Your task to perform on an android device: Open Google Chrome and click the shortcut for Amazon.com Image 0: 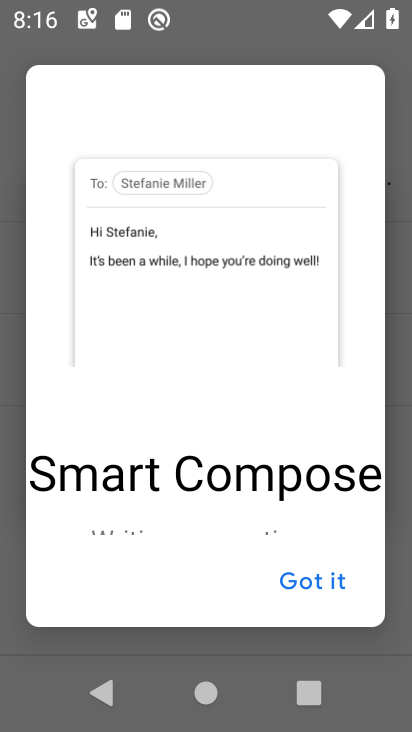
Step 0: press home button
Your task to perform on an android device: Open Google Chrome and click the shortcut for Amazon.com Image 1: 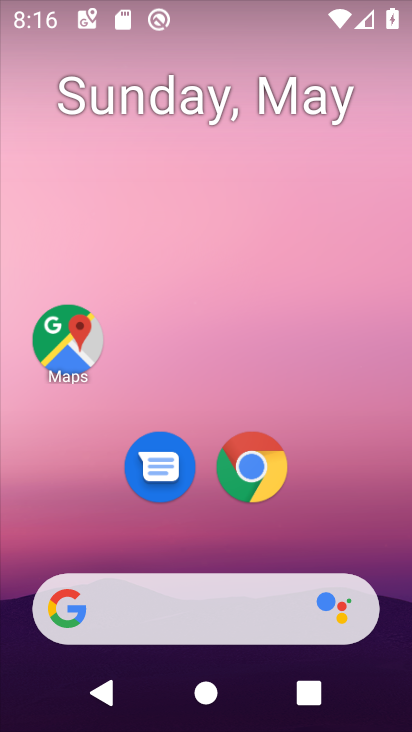
Step 1: drag from (338, 538) to (352, 262)
Your task to perform on an android device: Open Google Chrome and click the shortcut for Amazon.com Image 2: 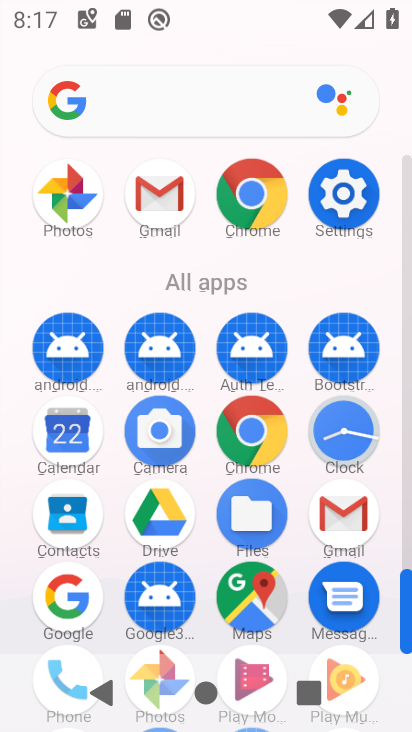
Step 2: click (244, 420)
Your task to perform on an android device: Open Google Chrome and click the shortcut for Amazon.com Image 3: 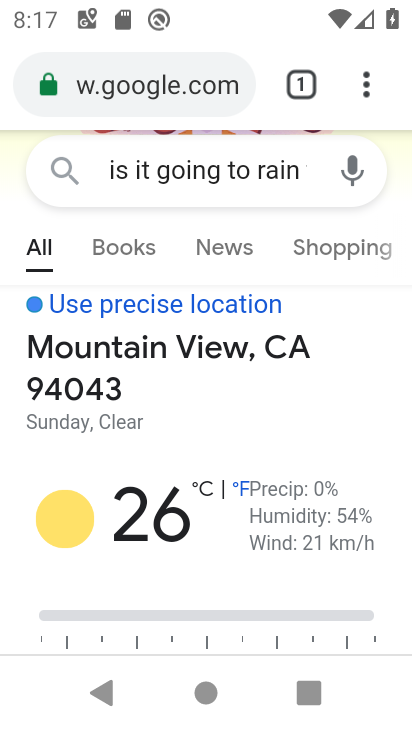
Step 3: drag from (369, 99) to (42, 175)
Your task to perform on an android device: Open Google Chrome and click the shortcut for Amazon.com Image 4: 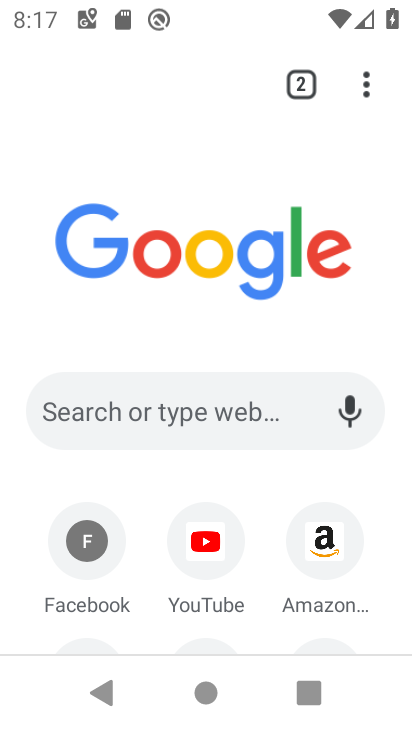
Step 4: click (313, 554)
Your task to perform on an android device: Open Google Chrome and click the shortcut for Amazon.com Image 5: 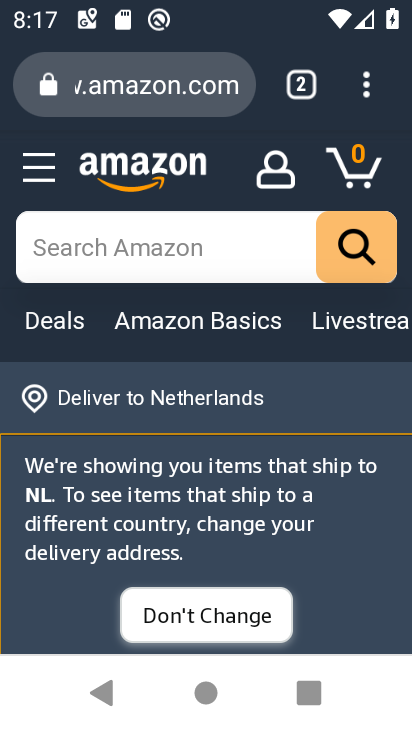
Step 5: task complete